Your task to perform on an android device: turn off priority inbox in the gmail app Image 0: 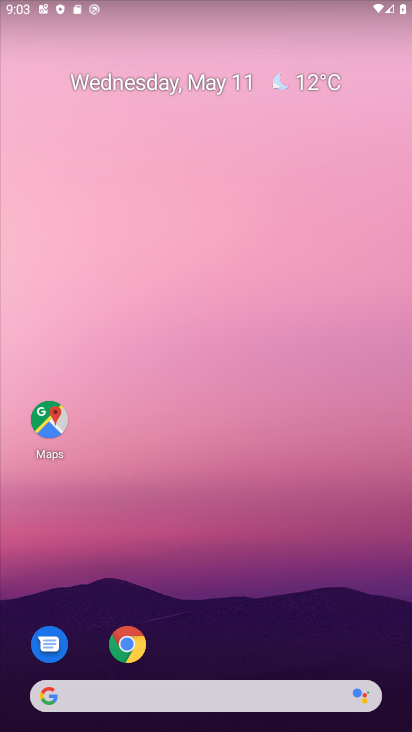
Step 0: drag from (299, 640) to (277, 34)
Your task to perform on an android device: turn off priority inbox in the gmail app Image 1: 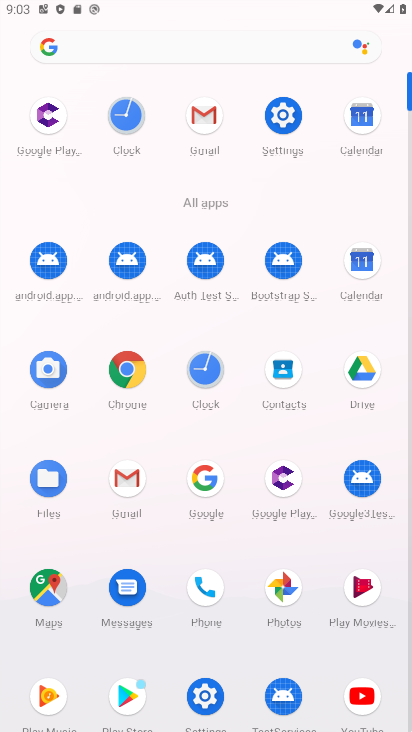
Step 1: click (212, 124)
Your task to perform on an android device: turn off priority inbox in the gmail app Image 2: 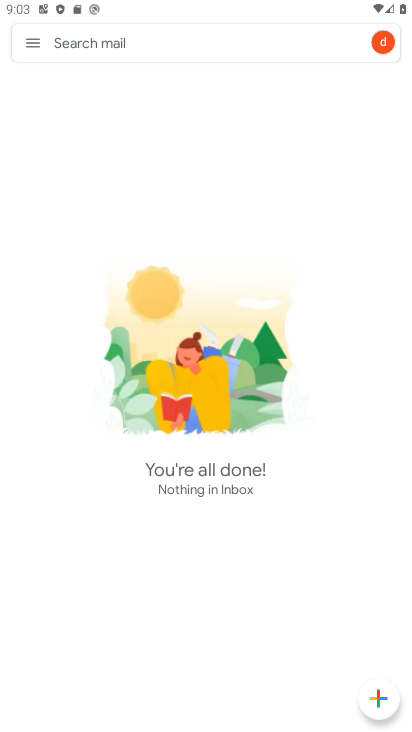
Step 2: click (30, 45)
Your task to perform on an android device: turn off priority inbox in the gmail app Image 3: 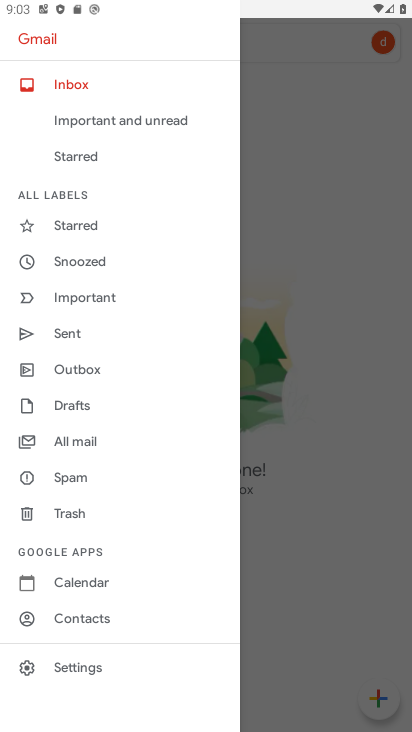
Step 3: click (65, 666)
Your task to perform on an android device: turn off priority inbox in the gmail app Image 4: 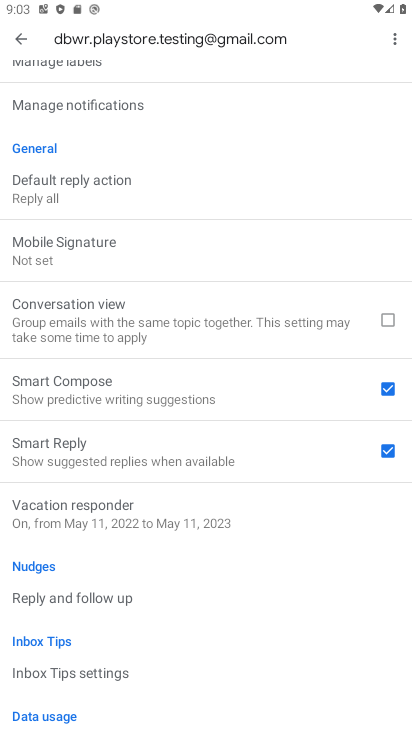
Step 4: drag from (218, 151) to (222, 616)
Your task to perform on an android device: turn off priority inbox in the gmail app Image 5: 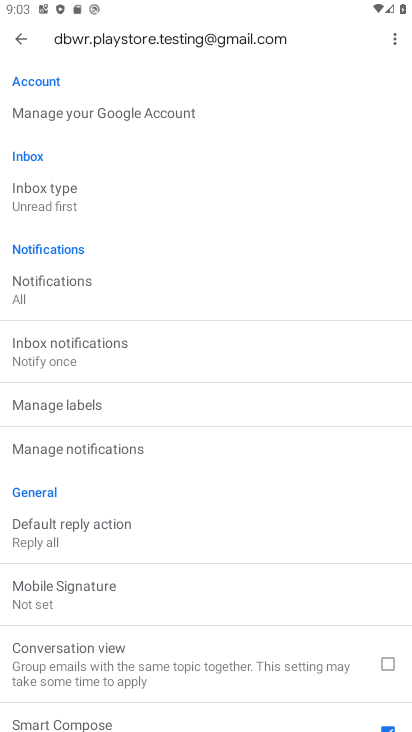
Step 5: click (56, 202)
Your task to perform on an android device: turn off priority inbox in the gmail app Image 6: 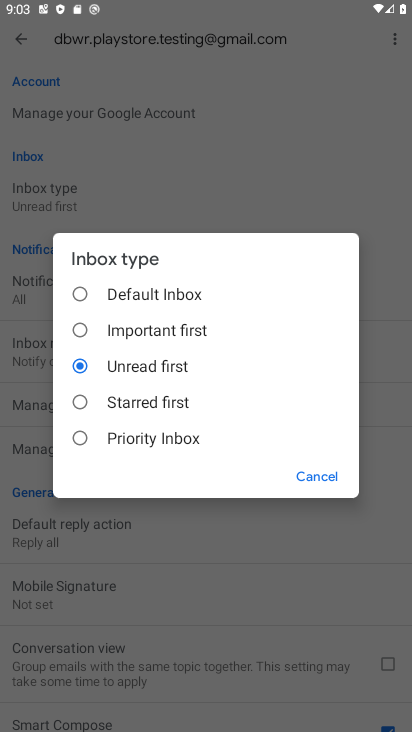
Step 6: task complete